Your task to perform on an android device: Search for flights from London to Paris Image 0: 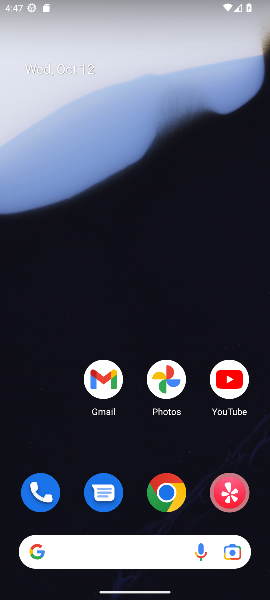
Step 0: click (172, 489)
Your task to perform on an android device: Search for flights from London to Paris Image 1: 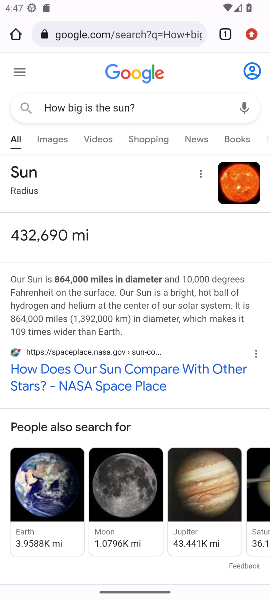
Step 1: click (135, 105)
Your task to perform on an android device: Search for flights from London to Paris Image 2: 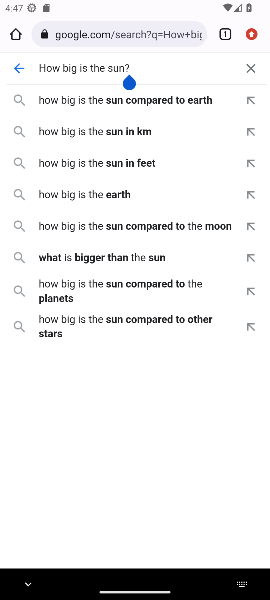
Step 2: click (245, 70)
Your task to perform on an android device: Search for flights from London to Paris Image 3: 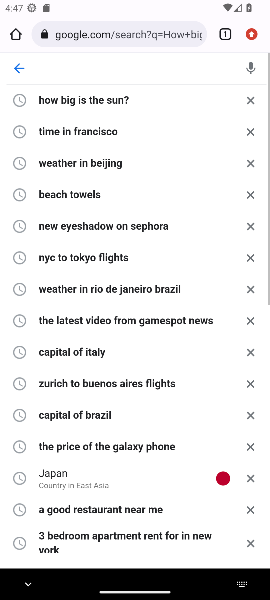
Step 3: type "London flights to Paris"
Your task to perform on an android device: Search for flights from London to Paris Image 4: 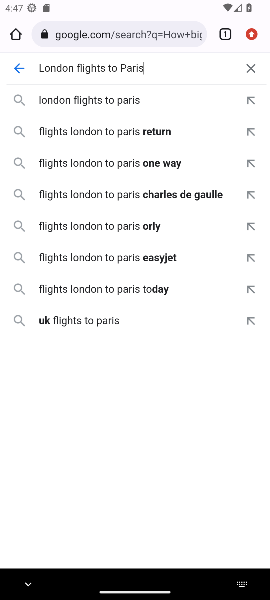
Step 4: click (156, 72)
Your task to perform on an android device: Search for flights from London to Paris Image 5: 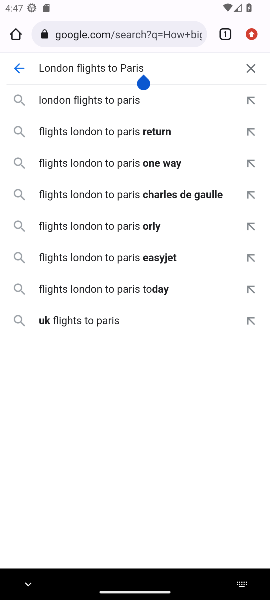
Step 5: click (127, 101)
Your task to perform on an android device: Search for flights from London to Paris Image 6: 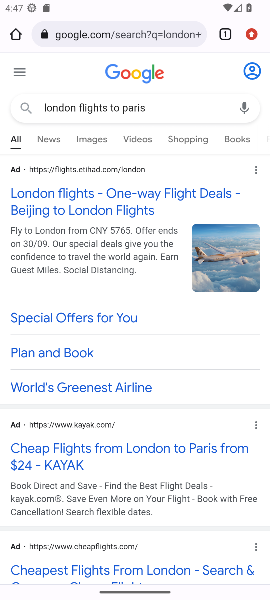
Step 6: click (64, 212)
Your task to perform on an android device: Search for flights from London to Paris Image 7: 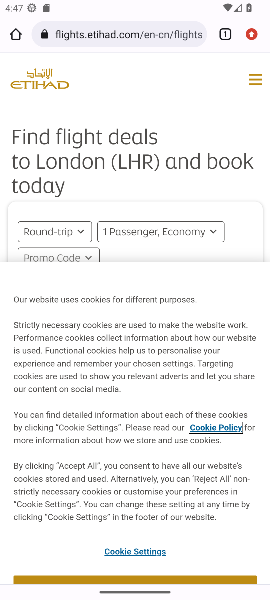
Step 7: drag from (149, 266) to (152, 63)
Your task to perform on an android device: Search for flights from London to Paris Image 8: 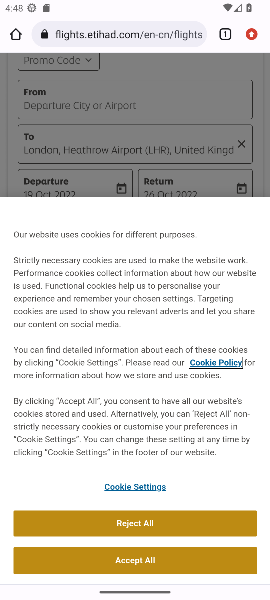
Step 8: drag from (147, 152) to (145, 0)
Your task to perform on an android device: Search for flights from London to Paris Image 9: 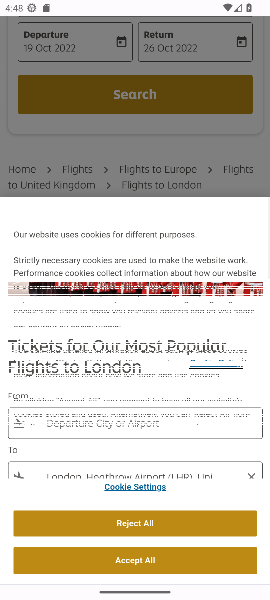
Step 9: drag from (142, 172) to (138, 7)
Your task to perform on an android device: Search for flights from London to Paris Image 10: 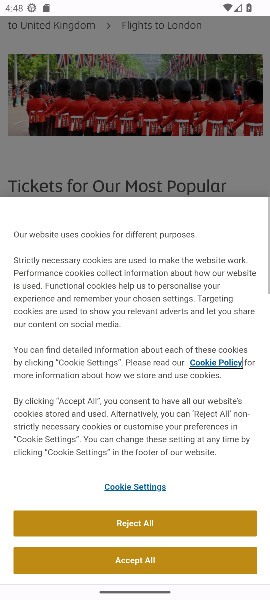
Step 10: drag from (124, 161) to (147, 0)
Your task to perform on an android device: Search for flights from London to Paris Image 11: 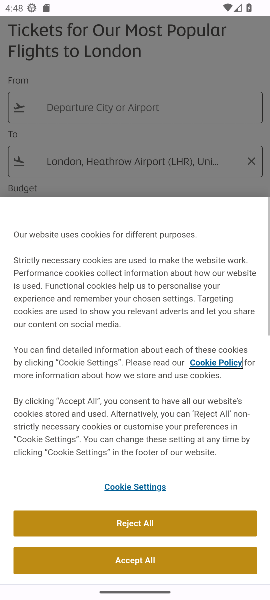
Step 11: drag from (144, 145) to (122, 7)
Your task to perform on an android device: Search for flights from London to Paris Image 12: 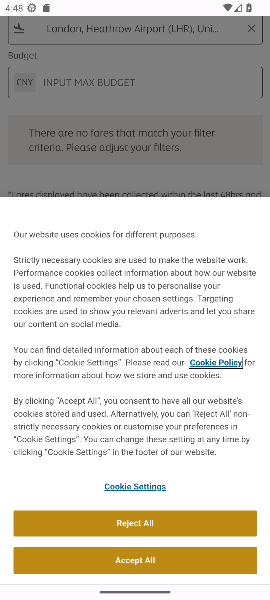
Step 12: drag from (133, 161) to (116, 9)
Your task to perform on an android device: Search for flights from London to Paris Image 13: 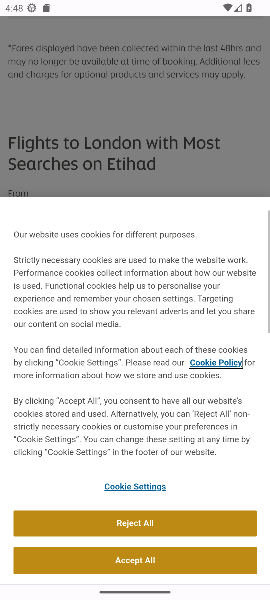
Step 13: drag from (116, 132) to (120, 0)
Your task to perform on an android device: Search for flights from London to Paris Image 14: 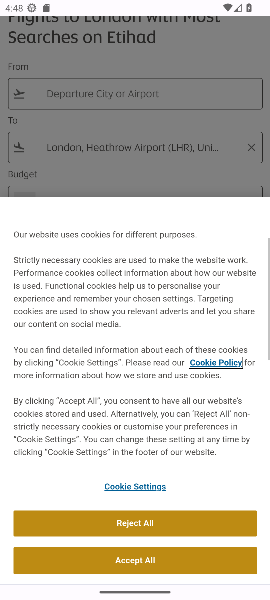
Step 14: drag from (128, 140) to (134, 1)
Your task to perform on an android device: Search for flights from London to Paris Image 15: 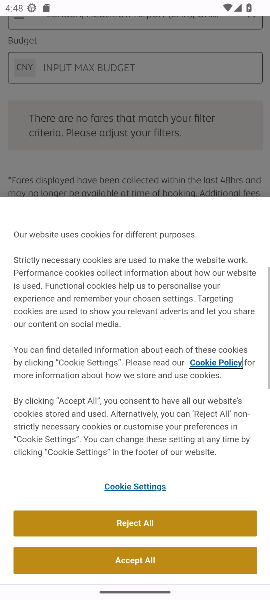
Step 15: drag from (142, 119) to (146, 9)
Your task to perform on an android device: Search for flights from London to Paris Image 16: 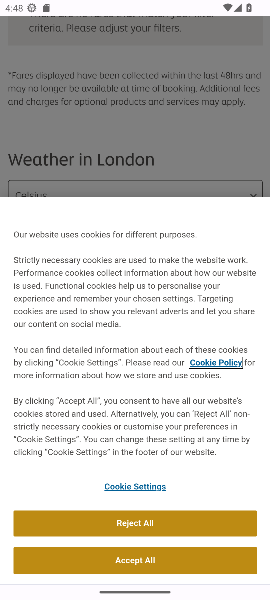
Step 16: drag from (142, 160) to (134, 3)
Your task to perform on an android device: Search for flights from London to Paris Image 17: 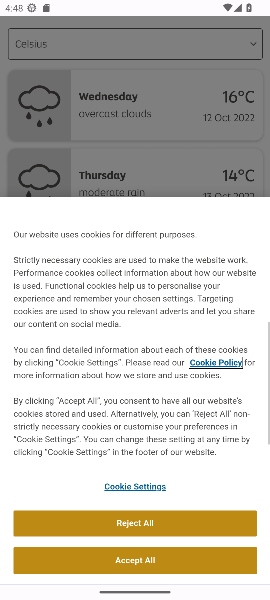
Step 17: drag from (134, 112) to (22, 0)
Your task to perform on an android device: Search for flights from London to Paris Image 18: 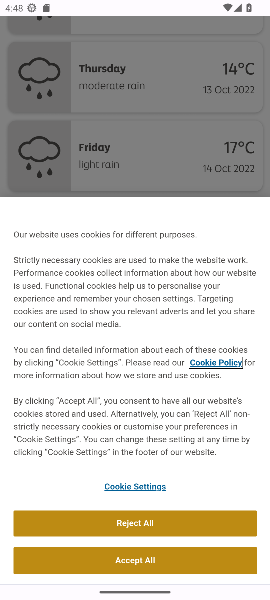
Step 18: drag from (89, 105) to (80, 423)
Your task to perform on an android device: Search for flights from London to Paris Image 19: 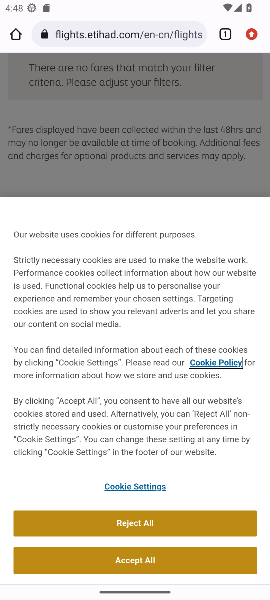
Step 19: drag from (126, 155) to (111, 5)
Your task to perform on an android device: Search for flights from London to Paris Image 20: 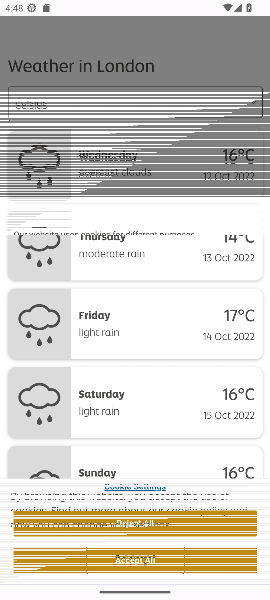
Step 20: drag from (101, 155) to (71, 9)
Your task to perform on an android device: Search for flights from London to Paris Image 21: 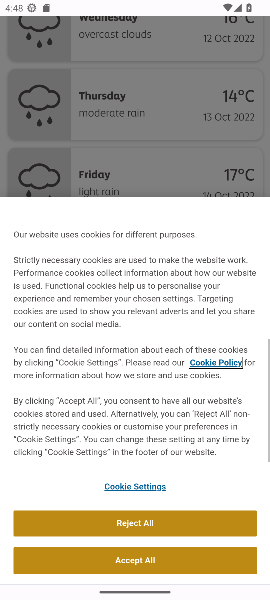
Step 21: drag from (82, 160) to (90, 14)
Your task to perform on an android device: Search for flights from London to Paris Image 22: 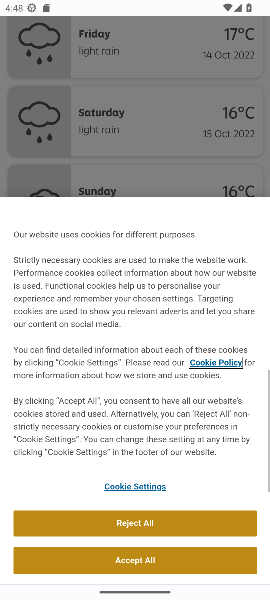
Step 22: drag from (89, 166) to (98, 0)
Your task to perform on an android device: Search for flights from London to Paris Image 23: 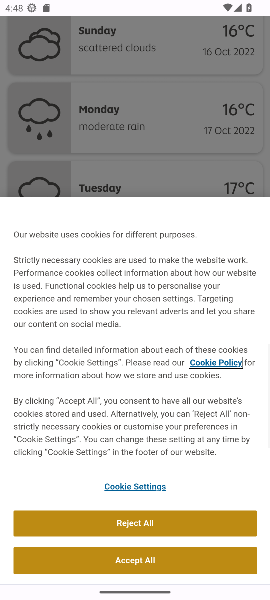
Step 23: drag from (105, 161) to (114, 4)
Your task to perform on an android device: Search for flights from London to Paris Image 24: 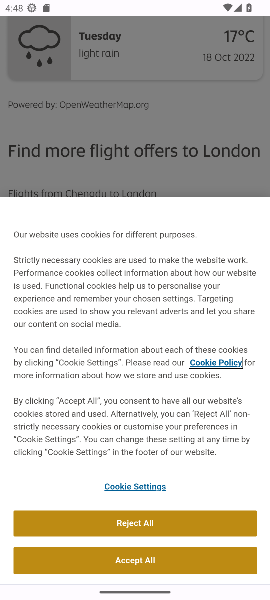
Step 24: drag from (118, 156) to (127, 6)
Your task to perform on an android device: Search for flights from London to Paris Image 25: 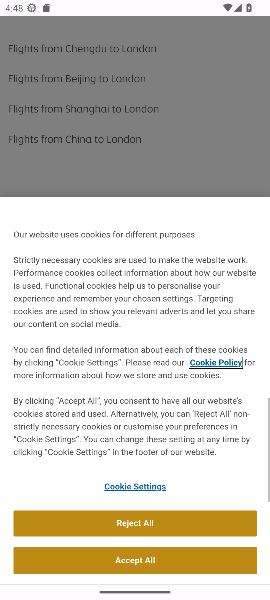
Step 25: drag from (127, 149) to (144, 15)
Your task to perform on an android device: Search for flights from London to Paris Image 26: 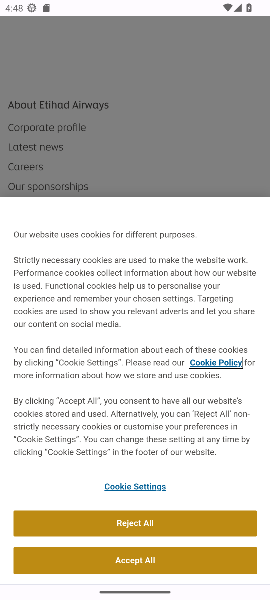
Step 26: drag from (118, 149) to (160, 6)
Your task to perform on an android device: Search for flights from London to Paris Image 27: 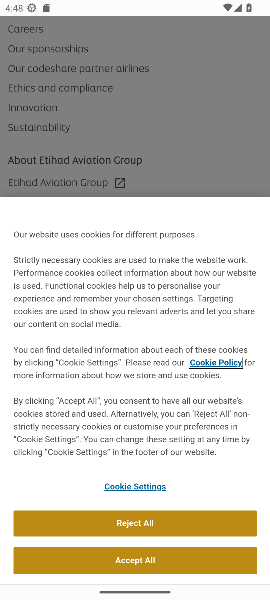
Step 27: press back button
Your task to perform on an android device: Search for flights from London to Paris Image 28: 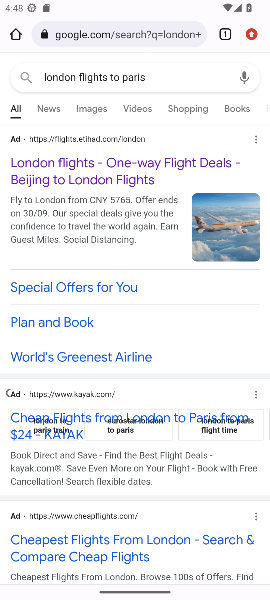
Step 28: click (174, 79)
Your task to perform on an android device: Search for flights from London to Paris Image 29: 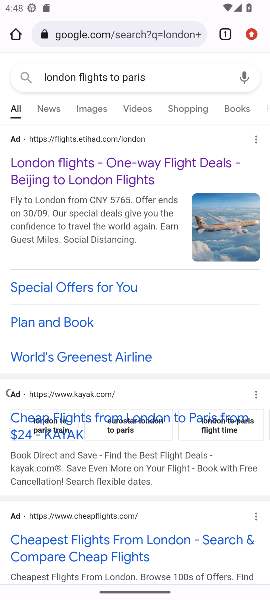
Step 29: click (194, 76)
Your task to perform on an android device: Search for flights from London to Paris Image 30: 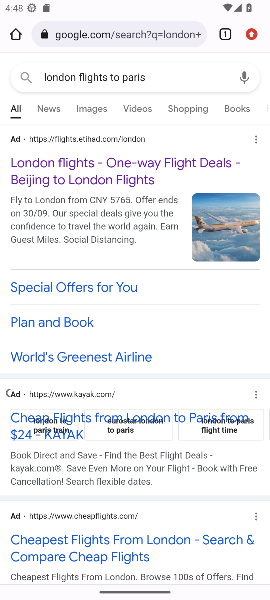
Step 30: click (69, 445)
Your task to perform on an android device: Search for flights from London to Paris Image 31: 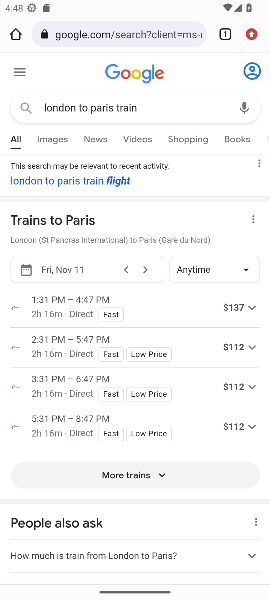
Step 31: task complete